Your task to perform on an android device: turn on showing notifications on the lock screen Image 0: 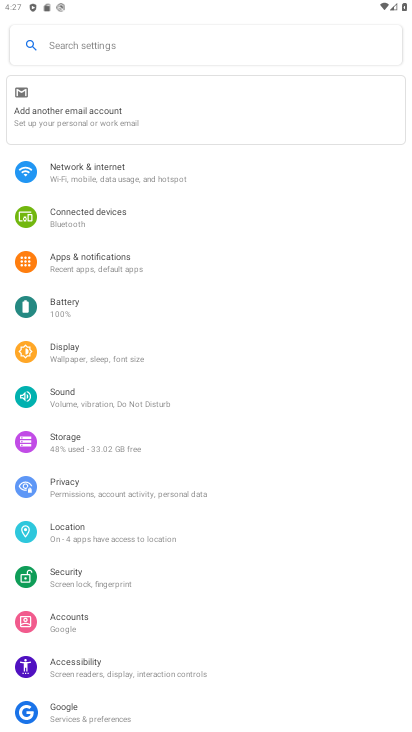
Step 0: press home button
Your task to perform on an android device: turn on showing notifications on the lock screen Image 1: 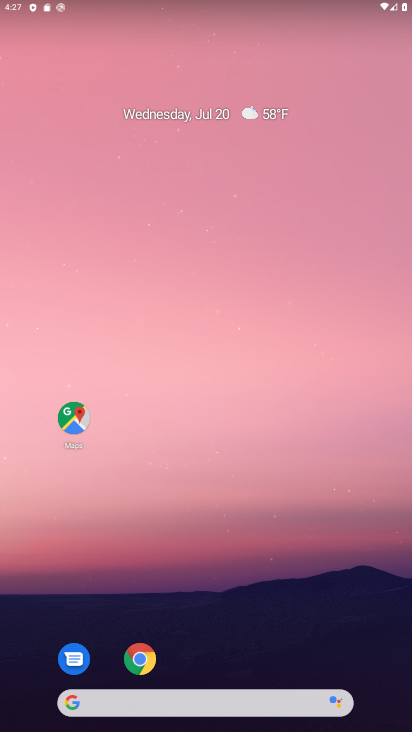
Step 1: drag from (240, 643) to (265, 35)
Your task to perform on an android device: turn on showing notifications on the lock screen Image 2: 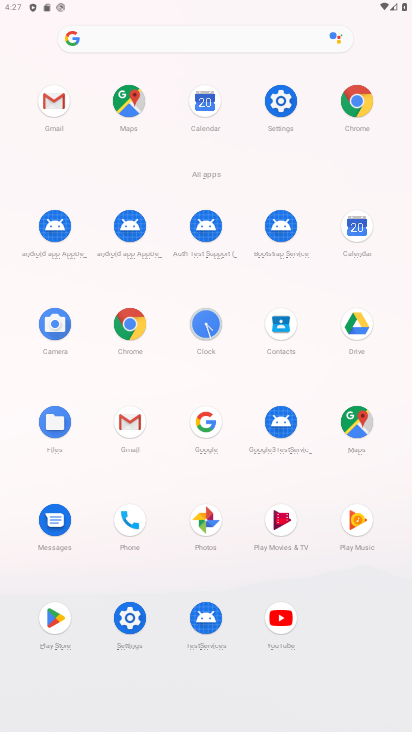
Step 2: click (279, 109)
Your task to perform on an android device: turn on showing notifications on the lock screen Image 3: 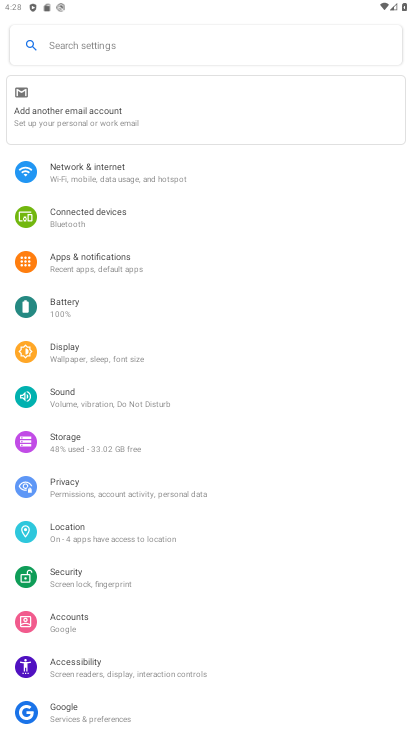
Step 3: click (105, 264)
Your task to perform on an android device: turn on showing notifications on the lock screen Image 4: 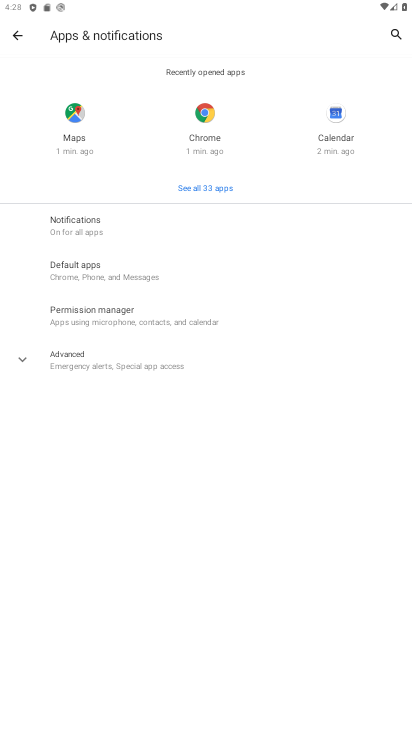
Step 4: click (83, 226)
Your task to perform on an android device: turn on showing notifications on the lock screen Image 5: 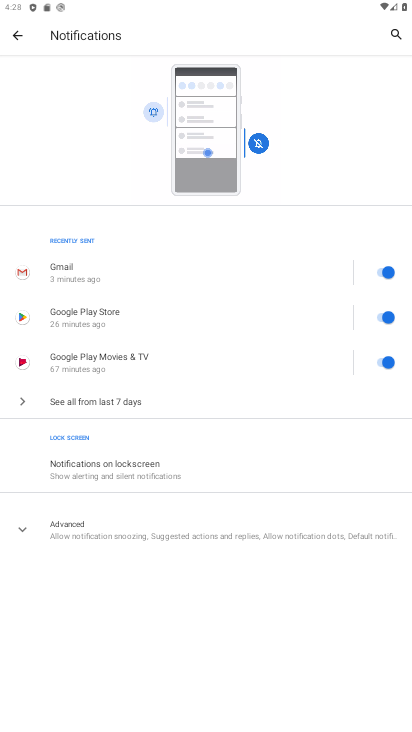
Step 5: click (133, 472)
Your task to perform on an android device: turn on showing notifications on the lock screen Image 6: 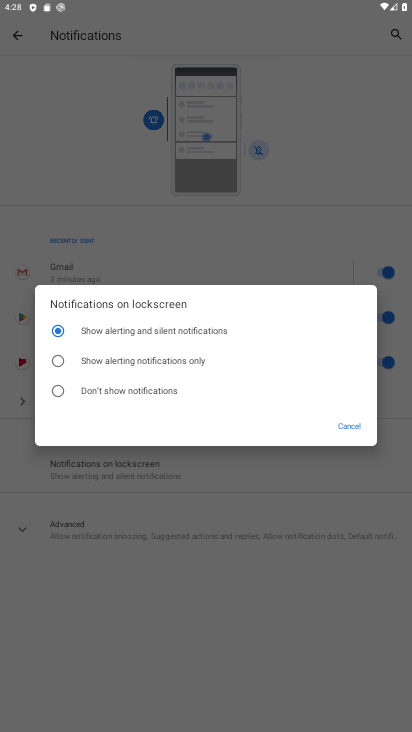
Step 6: task complete